Your task to perform on an android device: Open Google Chrome Image 0: 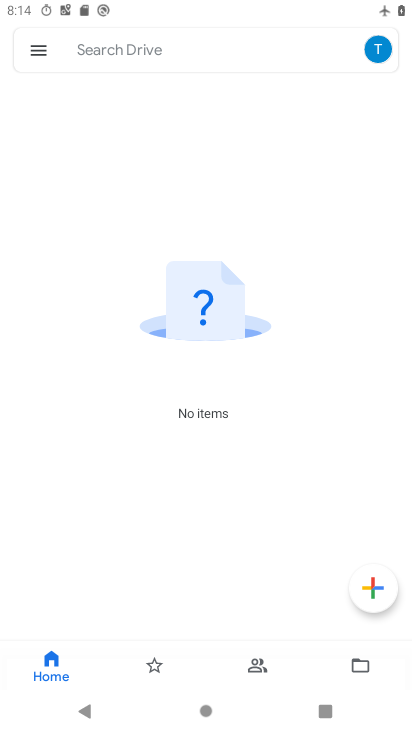
Step 0: press back button
Your task to perform on an android device: Open Google Chrome Image 1: 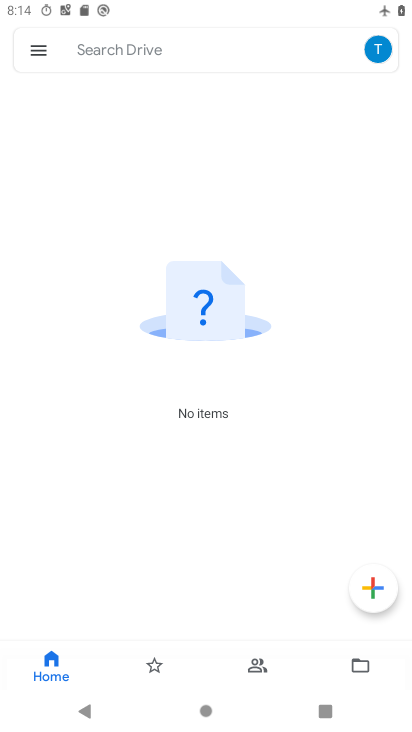
Step 1: press back button
Your task to perform on an android device: Open Google Chrome Image 2: 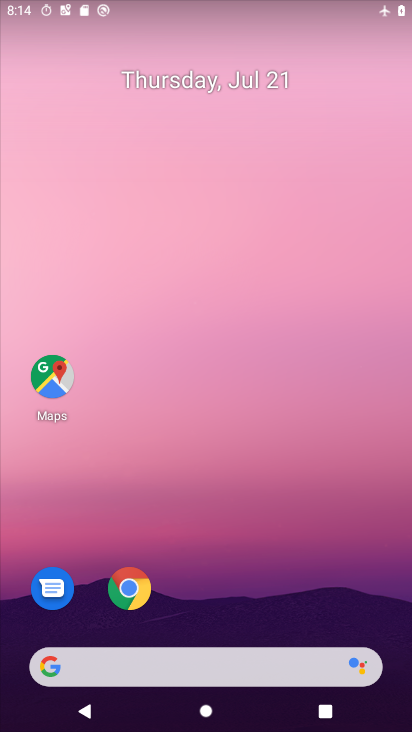
Step 2: drag from (244, 667) to (264, 181)
Your task to perform on an android device: Open Google Chrome Image 3: 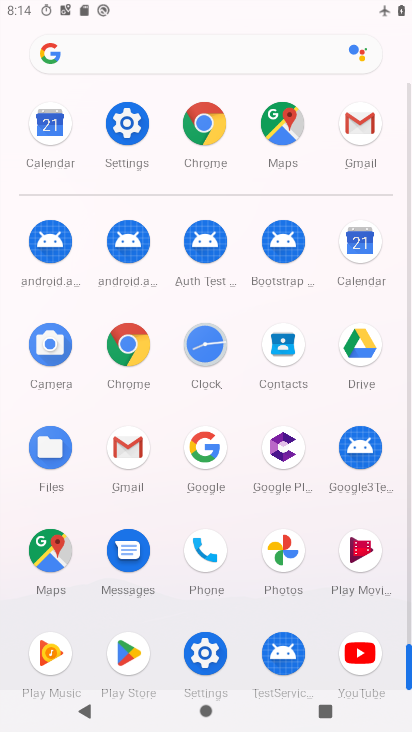
Step 3: click (208, 119)
Your task to perform on an android device: Open Google Chrome Image 4: 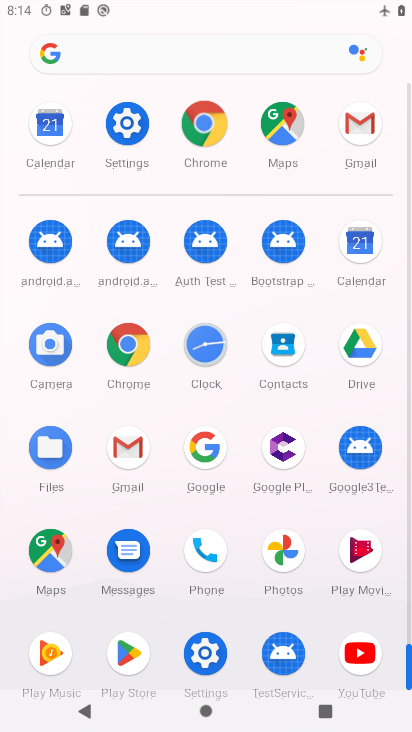
Step 4: click (202, 110)
Your task to perform on an android device: Open Google Chrome Image 5: 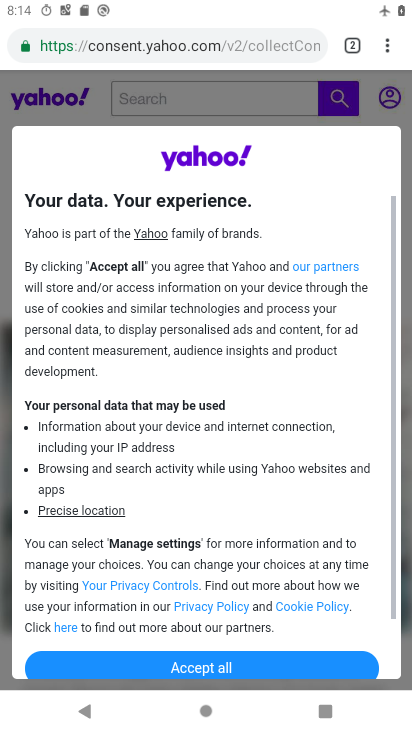
Step 5: task complete